Your task to perform on an android device: turn notification dots on Image 0: 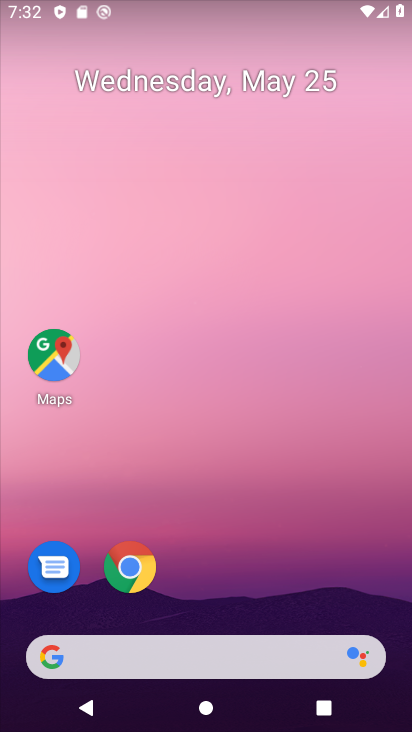
Step 0: drag from (288, 602) to (284, 123)
Your task to perform on an android device: turn notification dots on Image 1: 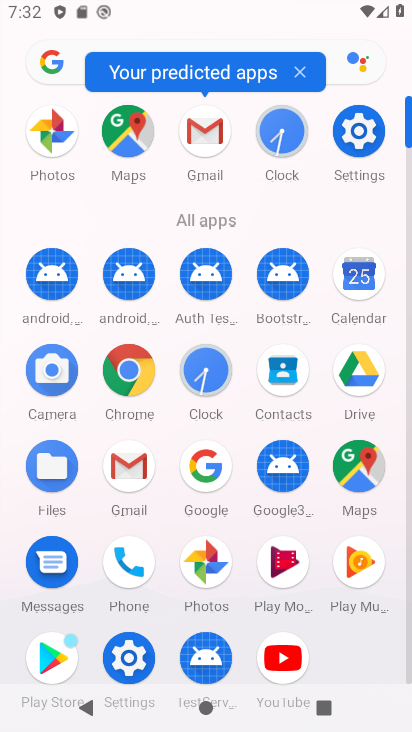
Step 1: click (381, 165)
Your task to perform on an android device: turn notification dots on Image 2: 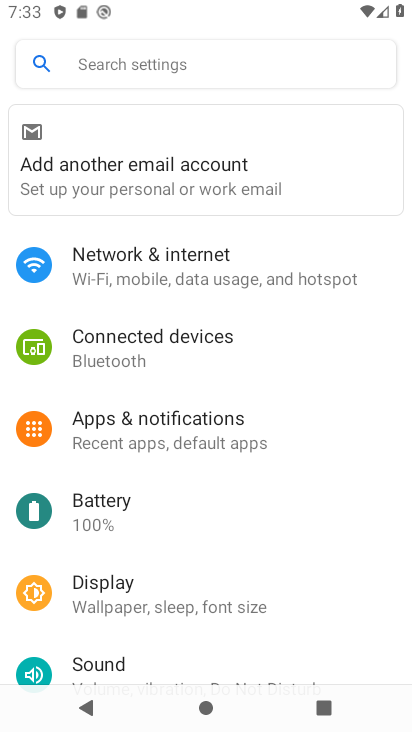
Step 2: drag from (245, 548) to (270, 311)
Your task to perform on an android device: turn notification dots on Image 3: 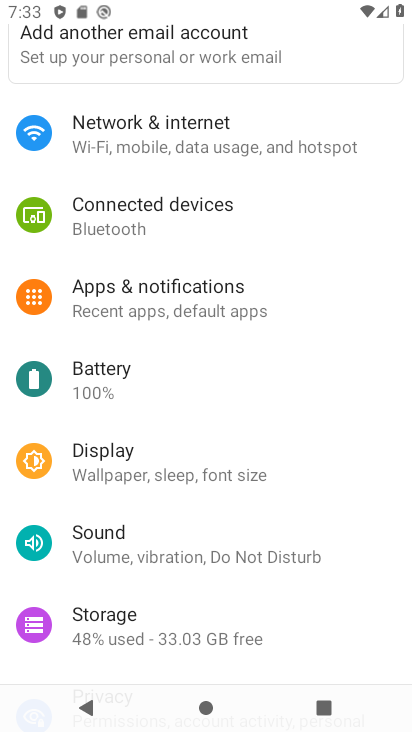
Step 3: drag from (265, 463) to (277, 339)
Your task to perform on an android device: turn notification dots on Image 4: 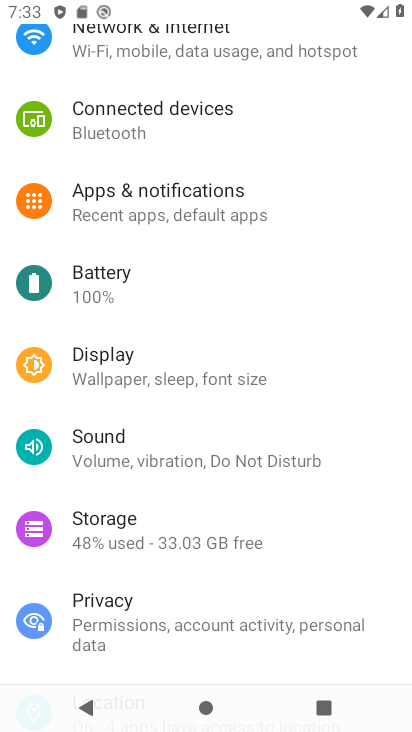
Step 4: click (255, 211)
Your task to perform on an android device: turn notification dots on Image 5: 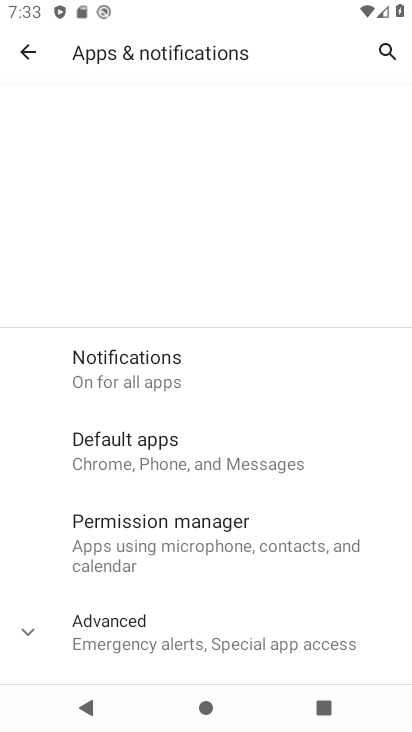
Step 5: drag from (215, 554) to (215, 369)
Your task to perform on an android device: turn notification dots on Image 6: 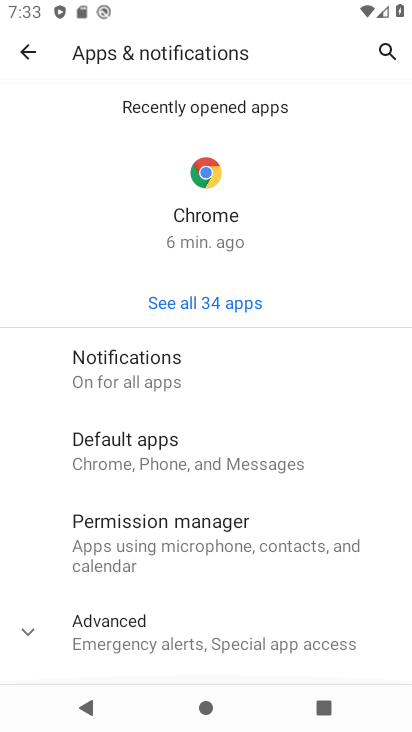
Step 6: click (215, 369)
Your task to perform on an android device: turn notification dots on Image 7: 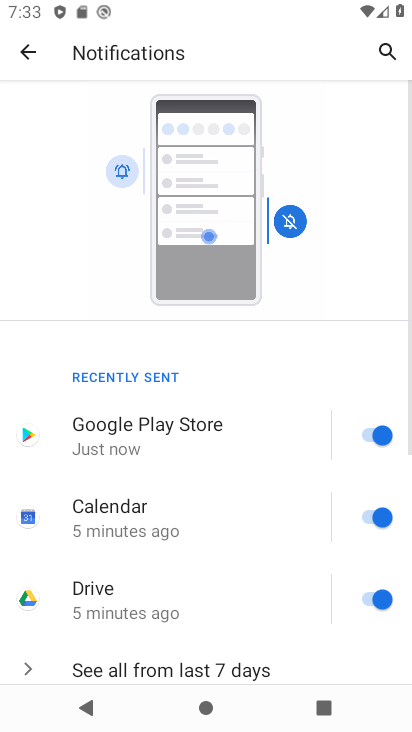
Step 7: drag from (254, 525) to (236, 183)
Your task to perform on an android device: turn notification dots on Image 8: 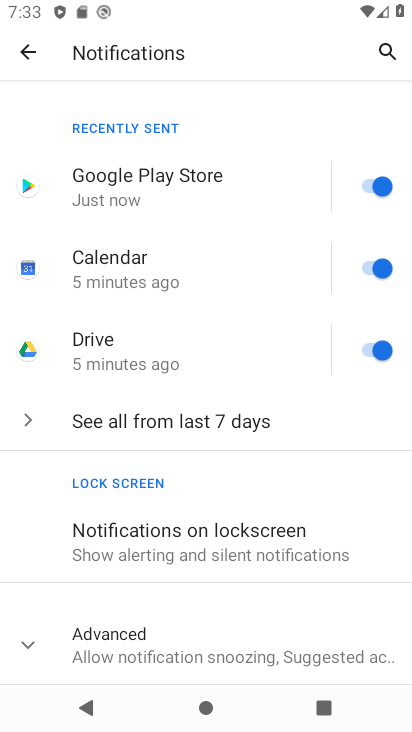
Step 8: drag from (201, 538) to (213, 360)
Your task to perform on an android device: turn notification dots on Image 9: 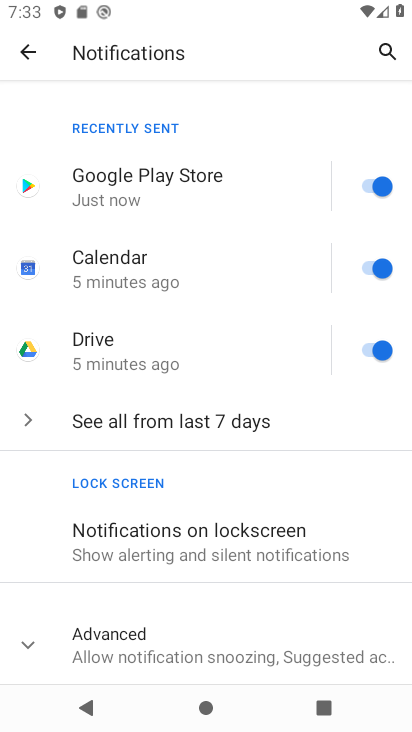
Step 9: click (203, 645)
Your task to perform on an android device: turn notification dots on Image 10: 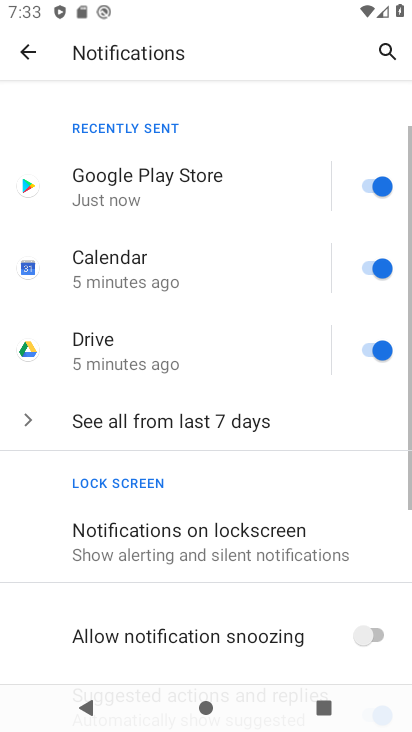
Step 10: drag from (262, 615) to (255, 388)
Your task to perform on an android device: turn notification dots on Image 11: 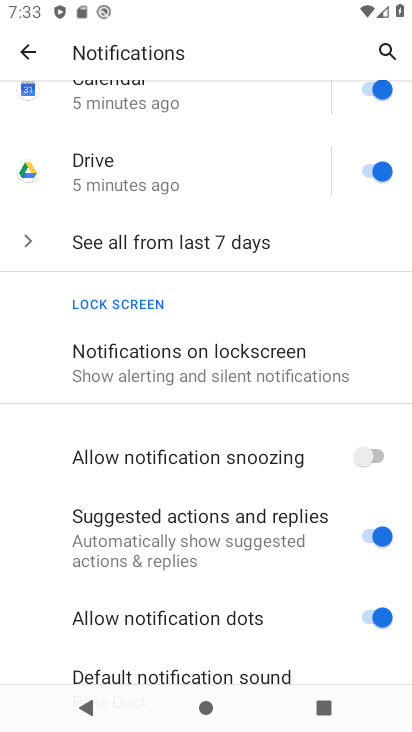
Step 11: click (346, 607)
Your task to perform on an android device: turn notification dots on Image 12: 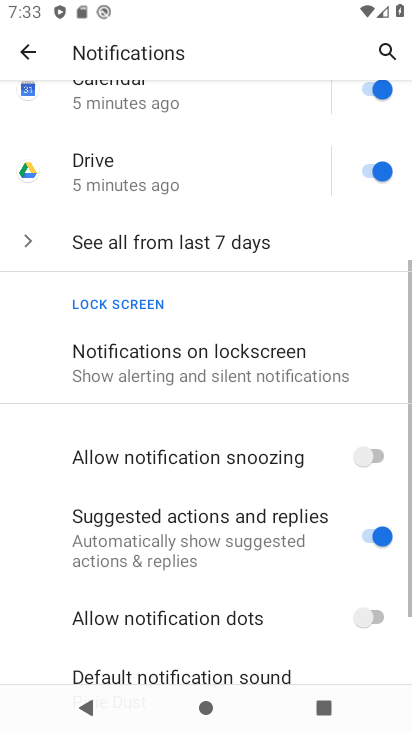
Step 12: click (381, 609)
Your task to perform on an android device: turn notification dots on Image 13: 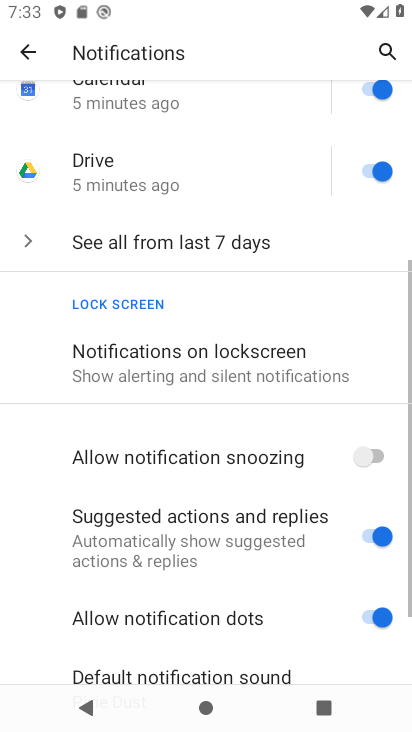
Step 13: task complete